Your task to perform on an android device: Open Google Maps Image 0: 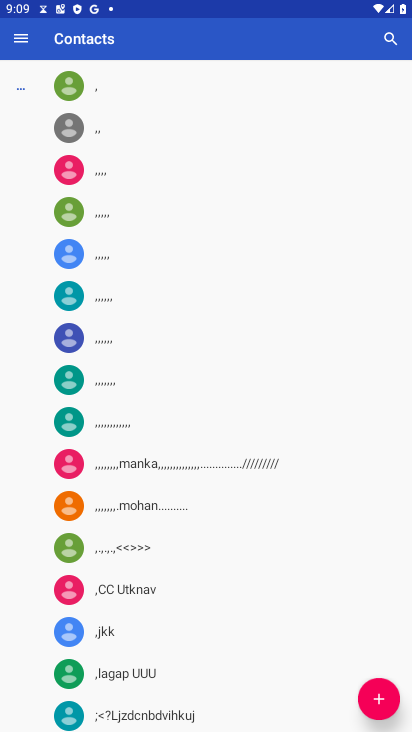
Step 0: press back button
Your task to perform on an android device: Open Google Maps Image 1: 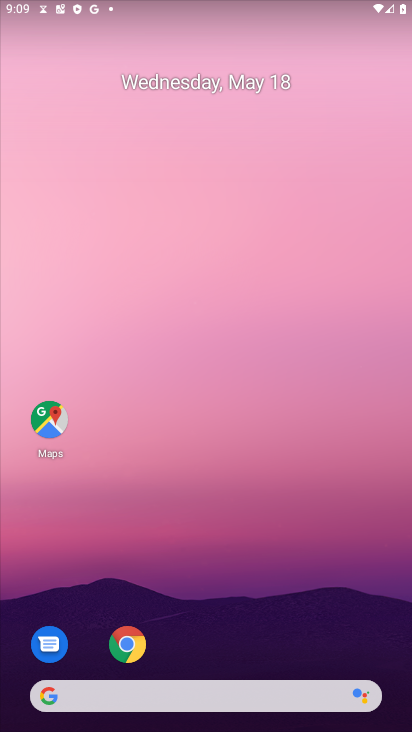
Step 1: click (47, 421)
Your task to perform on an android device: Open Google Maps Image 2: 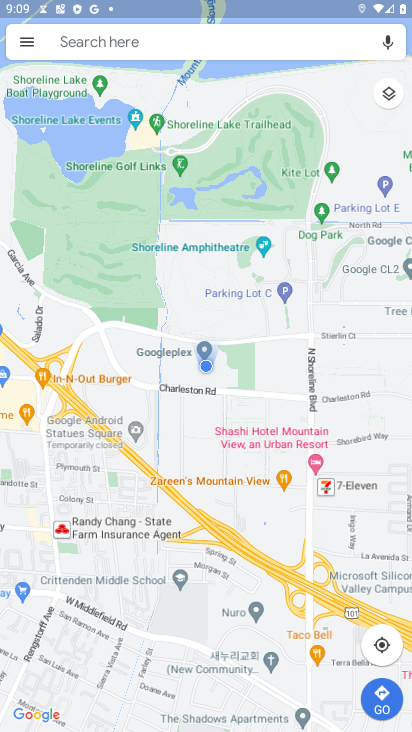
Step 2: task complete